Your task to perform on an android device: What's on my calendar tomorrow? Image 0: 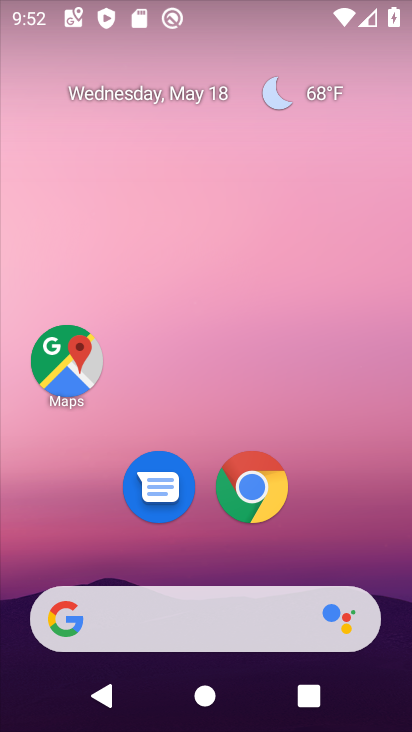
Step 0: drag from (369, 496) to (355, 155)
Your task to perform on an android device: What's on my calendar tomorrow? Image 1: 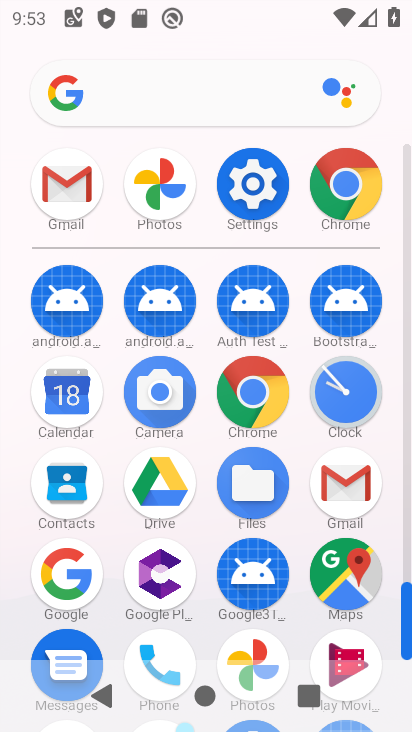
Step 1: click (66, 396)
Your task to perform on an android device: What's on my calendar tomorrow? Image 2: 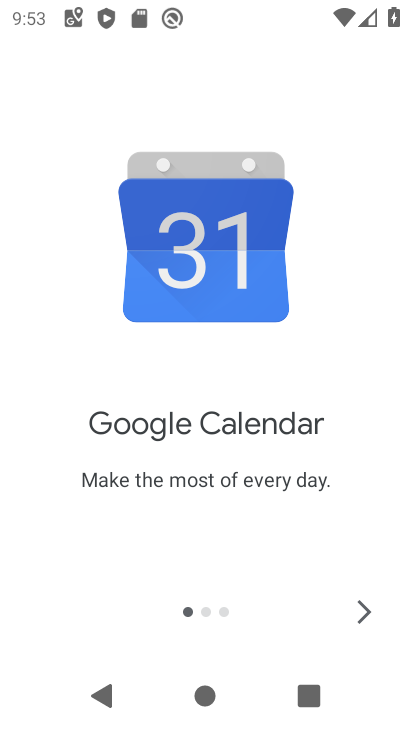
Step 2: click (362, 608)
Your task to perform on an android device: What's on my calendar tomorrow? Image 3: 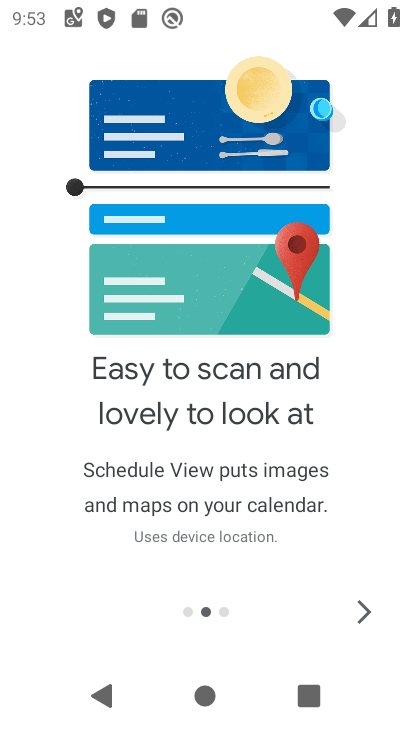
Step 3: click (364, 606)
Your task to perform on an android device: What's on my calendar tomorrow? Image 4: 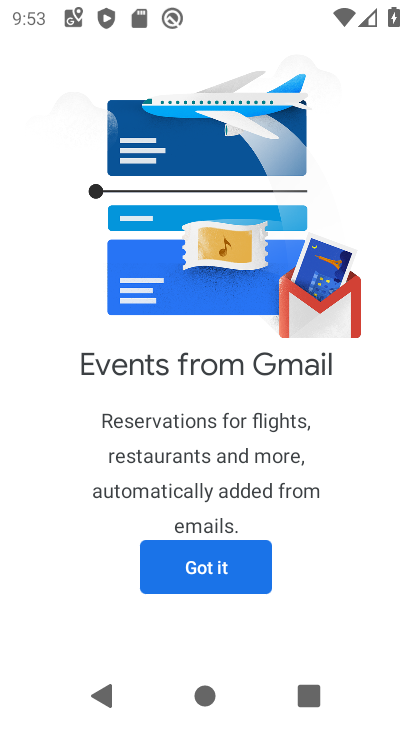
Step 4: click (228, 563)
Your task to perform on an android device: What's on my calendar tomorrow? Image 5: 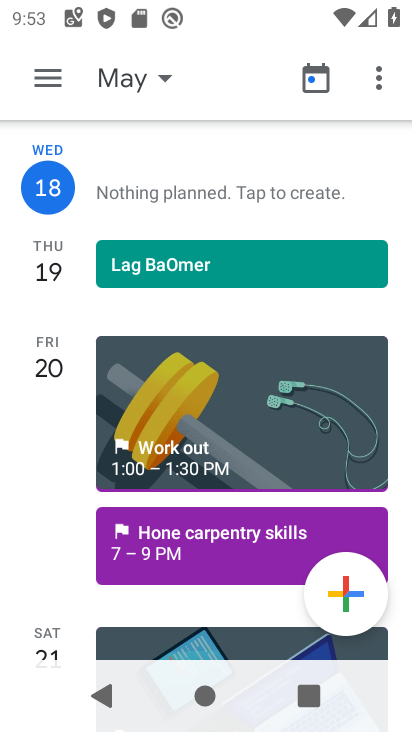
Step 5: task complete